Your task to perform on an android device: check out phone information Image 0: 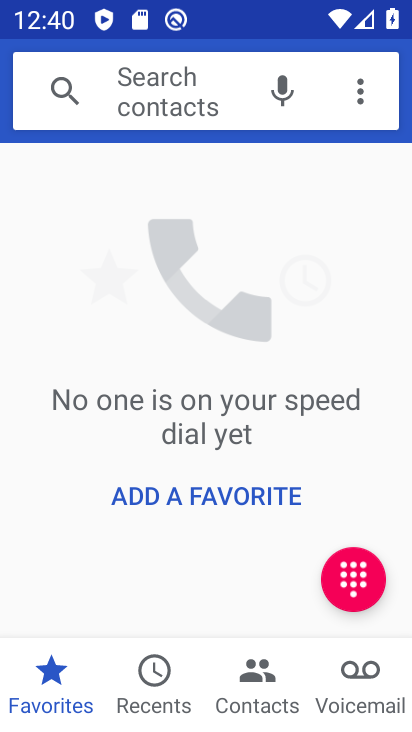
Step 0: press home button
Your task to perform on an android device: check out phone information Image 1: 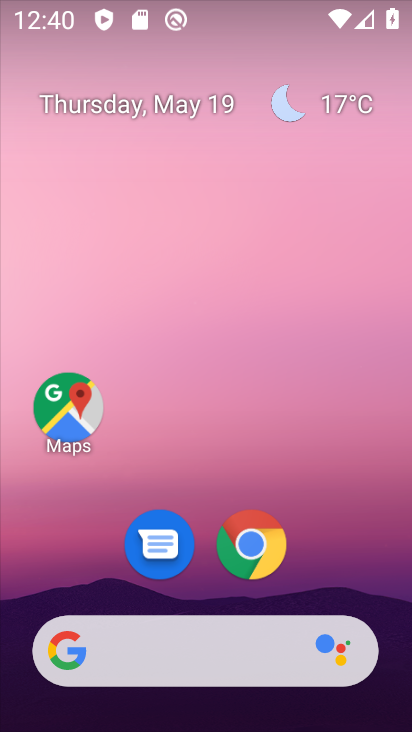
Step 1: drag from (222, 707) to (222, 350)
Your task to perform on an android device: check out phone information Image 2: 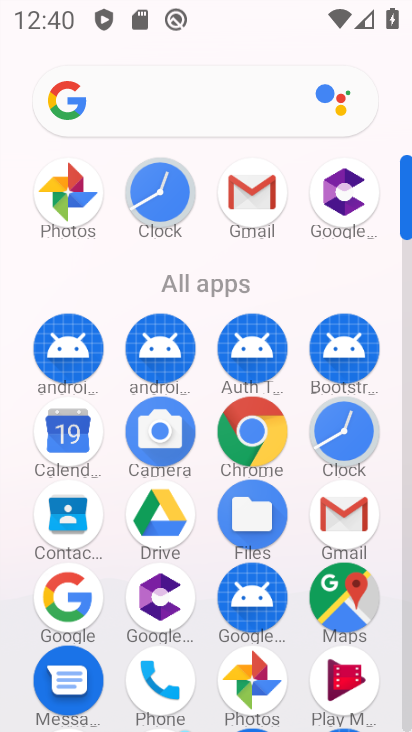
Step 2: drag from (215, 564) to (181, 272)
Your task to perform on an android device: check out phone information Image 3: 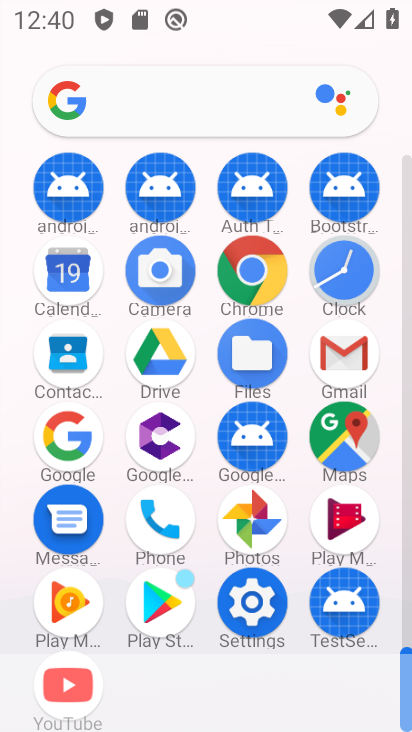
Step 3: click (264, 608)
Your task to perform on an android device: check out phone information Image 4: 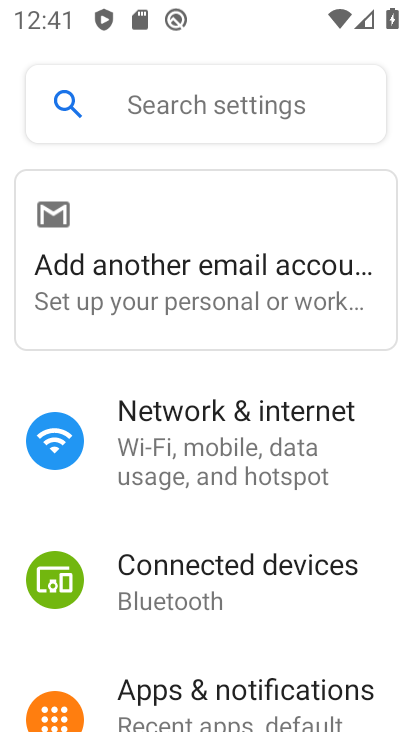
Step 4: drag from (262, 662) to (263, 331)
Your task to perform on an android device: check out phone information Image 5: 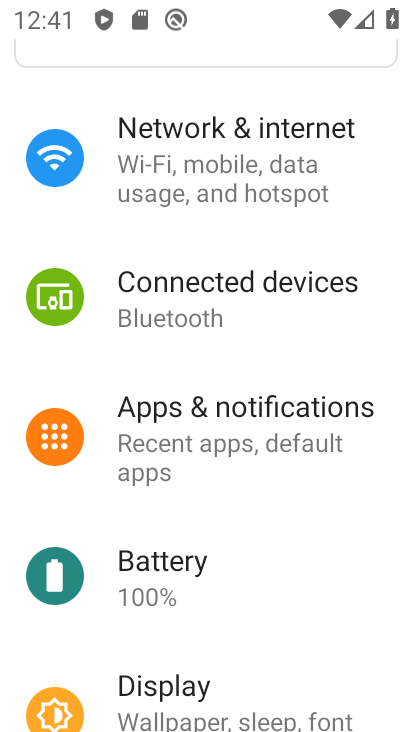
Step 5: drag from (248, 645) to (250, 434)
Your task to perform on an android device: check out phone information Image 6: 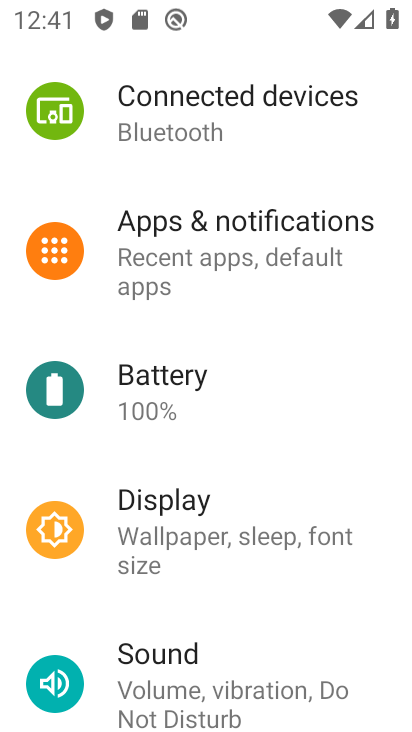
Step 6: drag from (263, 653) to (276, 185)
Your task to perform on an android device: check out phone information Image 7: 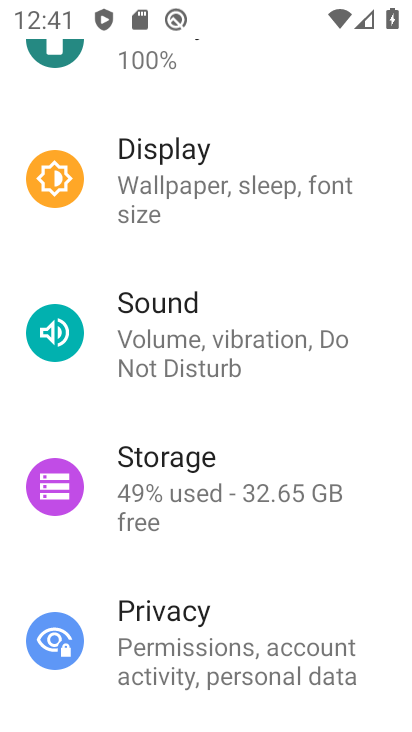
Step 7: drag from (265, 681) to (271, 364)
Your task to perform on an android device: check out phone information Image 8: 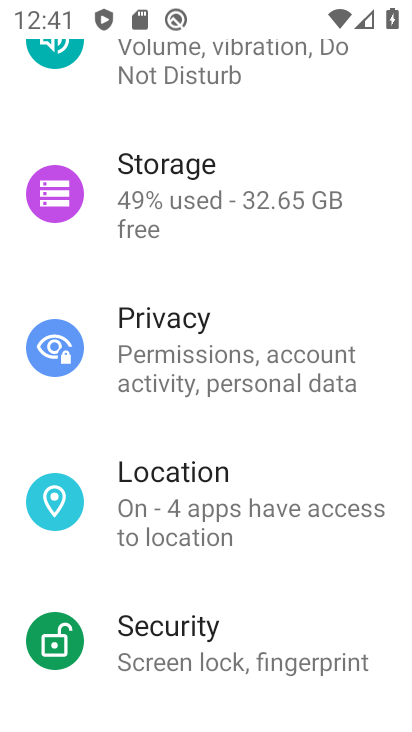
Step 8: drag from (223, 678) to (233, 297)
Your task to perform on an android device: check out phone information Image 9: 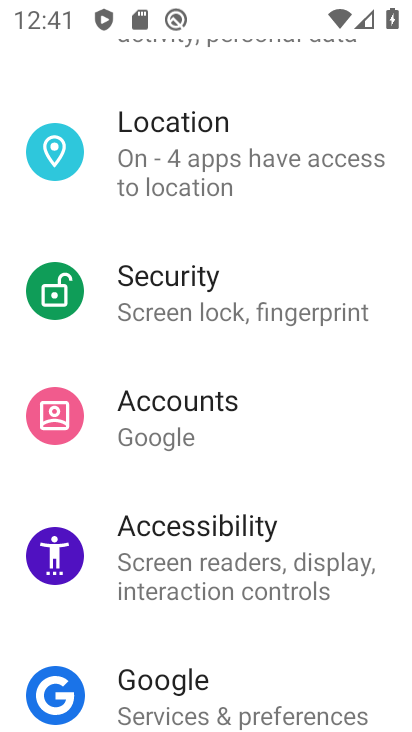
Step 9: drag from (217, 659) to (204, 272)
Your task to perform on an android device: check out phone information Image 10: 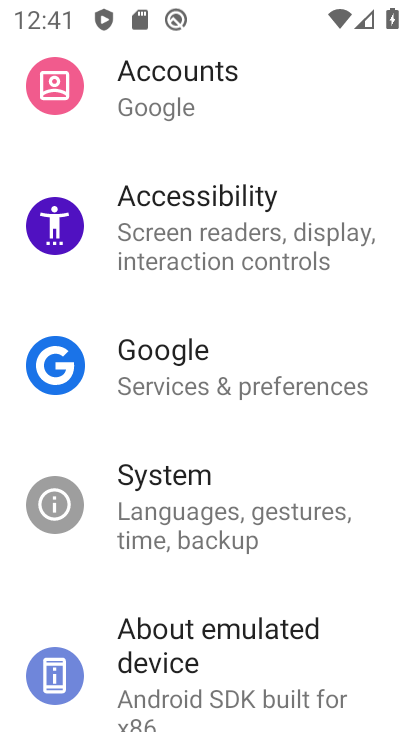
Step 10: drag from (288, 681) to (288, 393)
Your task to perform on an android device: check out phone information Image 11: 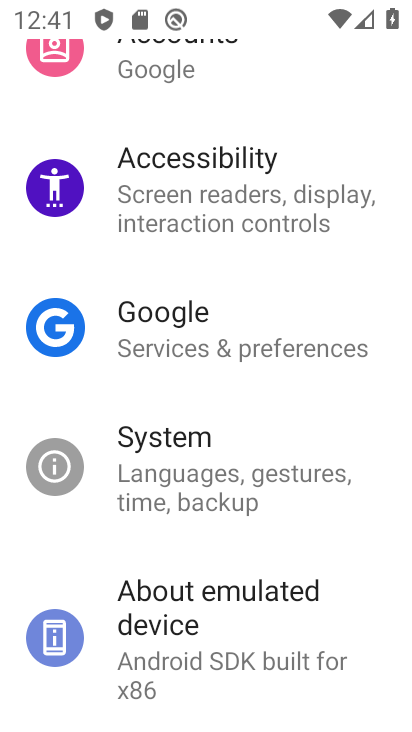
Step 11: drag from (246, 686) to (261, 356)
Your task to perform on an android device: check out phone information Image 12: 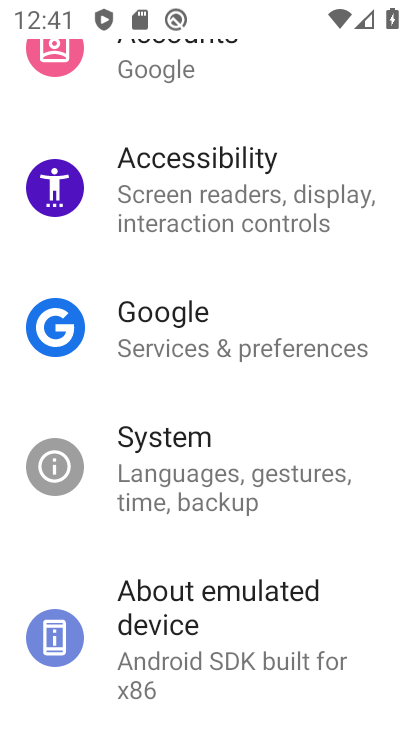
Step 12: click (198, 619)
Your task to perform on an android device: check out phone information Image 13: 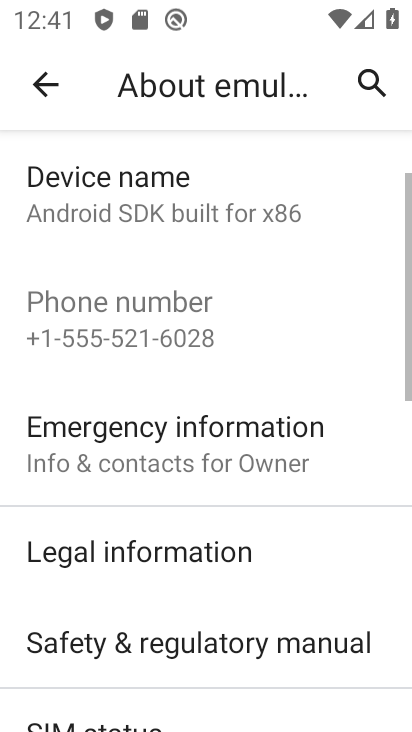
Step 13: task complete